Your task to perform on an android device: Search for vegetarian restaurants on Maps Image 0: 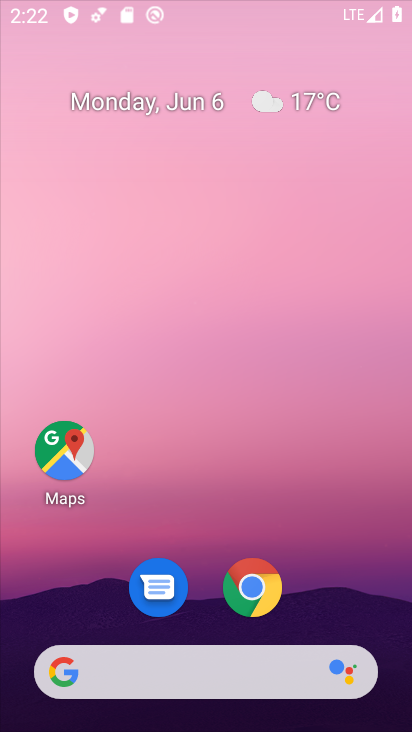
Step 0: drag from (318, 583) to (241, 34)
Your task to perform on an android device: Search for vegetarian restaurants on Maps Image 1: 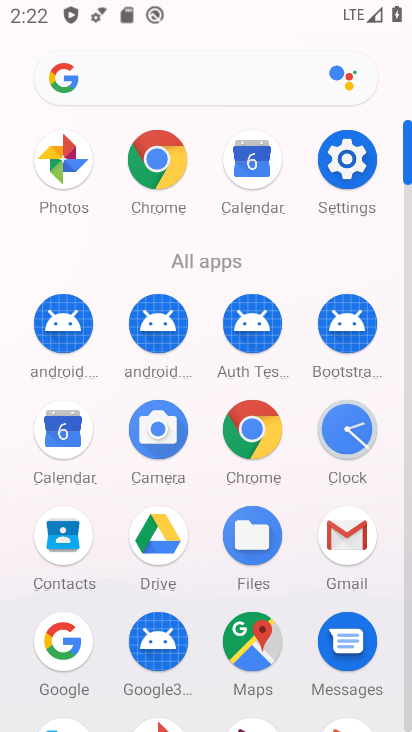
Step 1: drag from (13, 594) to (12, 285)
Your task to perform on an android device: Search for vegetarian restaurants on Maps Image 2: 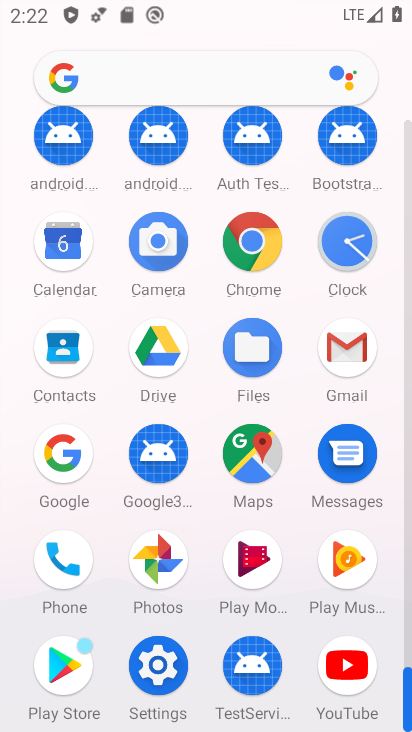
Step 2: click (253, 457)
Your task to perform on an android device: Search for vegetarian restaurants on Maps Image 3: 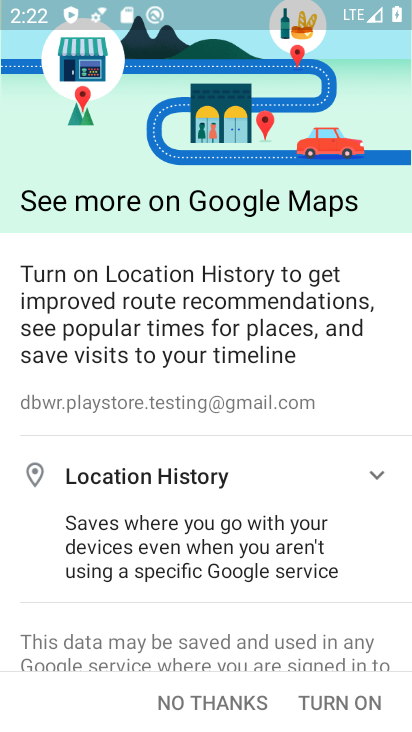
Step 3: click (338, 698)
Your task to perform on an android device: Search for vegetarian restaurants on Maps Image 4: 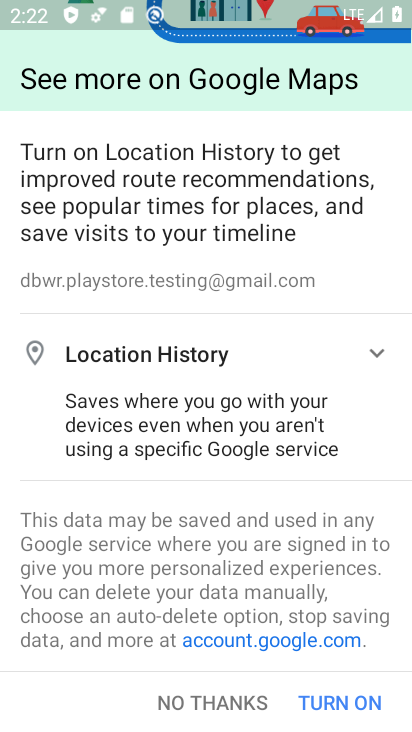
Step 4: click (338, 698)
Your task to perform on an android device: Search for vegetarian restaurants on Maps Image 5: 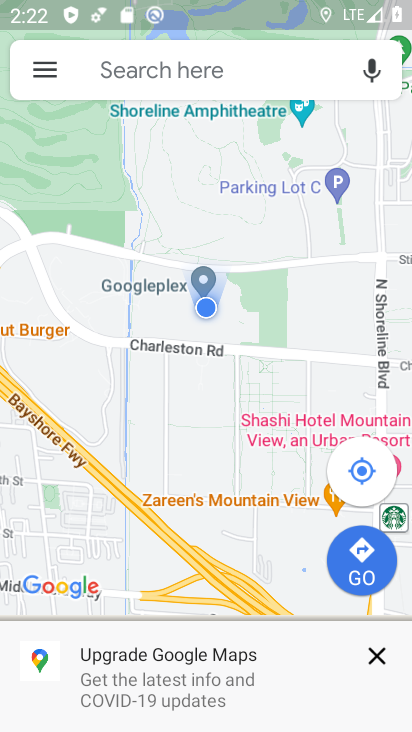
Step 5: click (251, 65)
Your task to perform on an android device: Search for vegetarian restaurants on Maps Image 6: 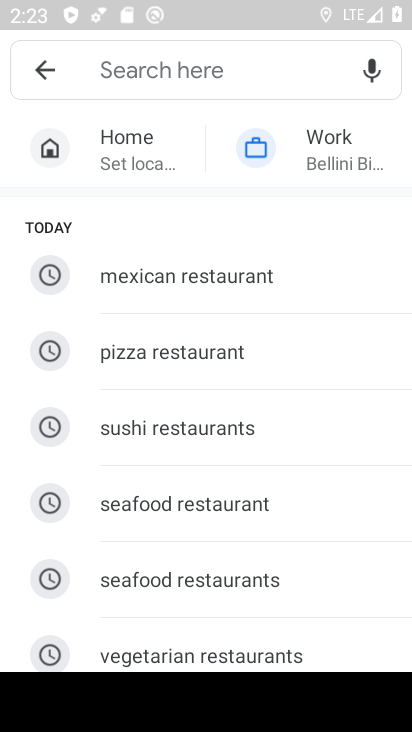
Step 6: drag from (232, 574) to (252, 343)
Your task to perform on an android device: Search for vegetarian restaurants on Maps Image 7: 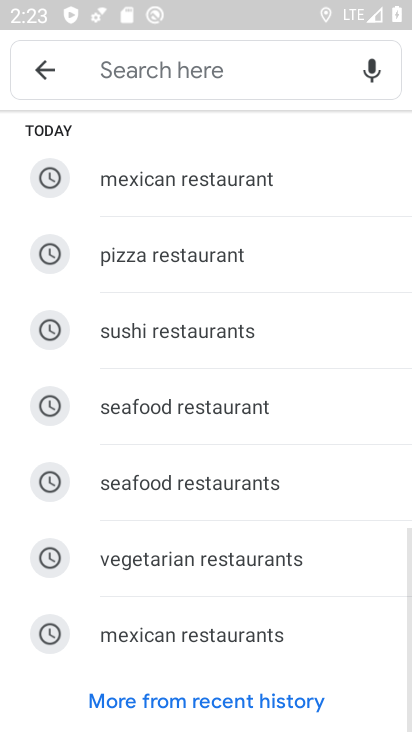
Step 7: click (212, 561)
Your task to perform on an android device: Search for vegetarian restaurants on Maps Image 8: 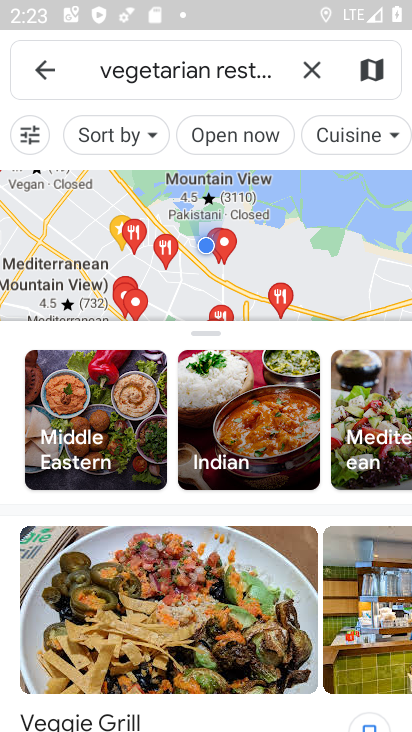
Step 8: task complete